Your task to perform on an android device: Open Chrome and go to settings Image 0: 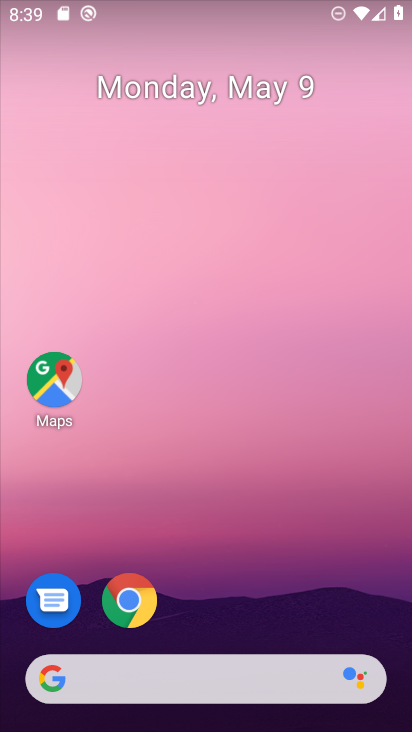
Step 0: drag from (231, 544) to (225, 50)
Your task to perform on an android device: Open Chrome and go to settings Image 1: 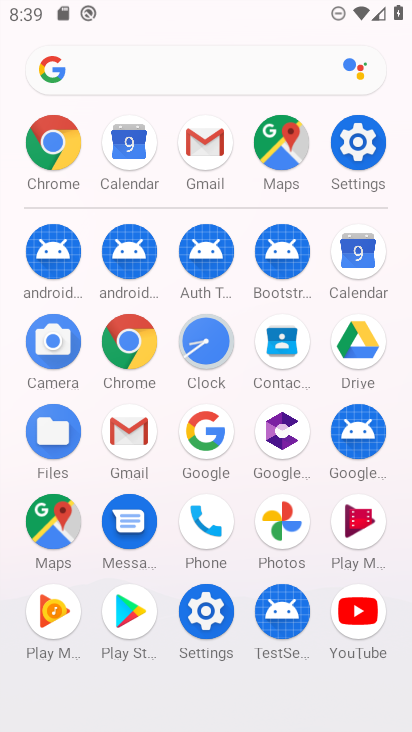
Step 1: click (126, 336)
Your task to perform on an android device: Open Chrome and go to settings Image 2: 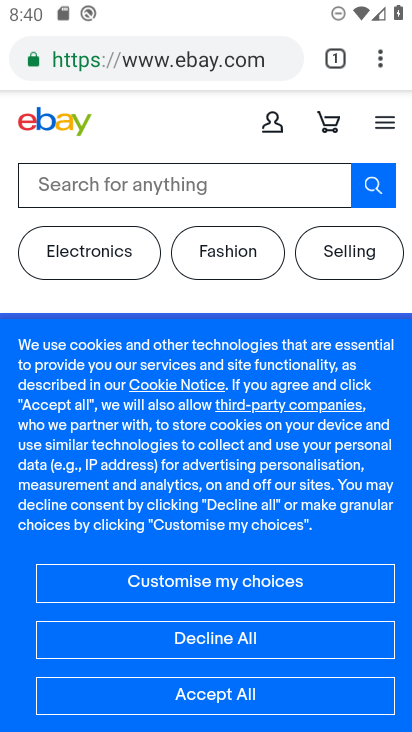
Step 2: task complete